Your task to perform on an android device: Open the web browser Image 0: 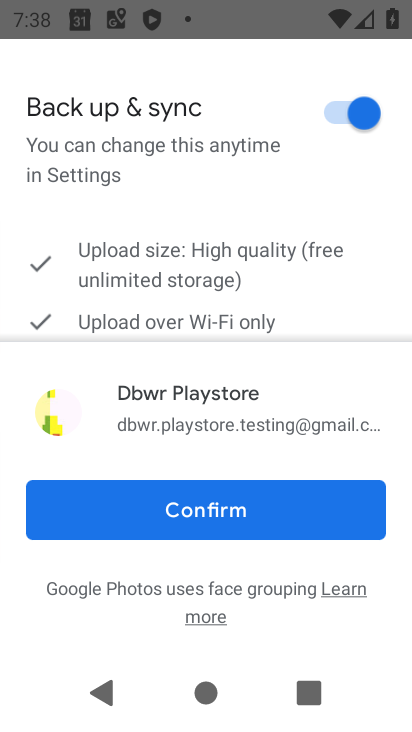
Step 0: press home button
Your task to perform on an android device: Open the web browser Image 1: 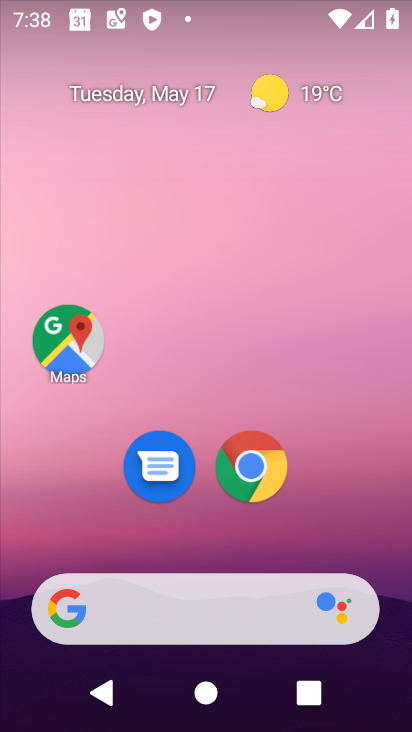
Step 1: click (265, 467)
Your task to perform on an android device: Open the web browser Image 2: 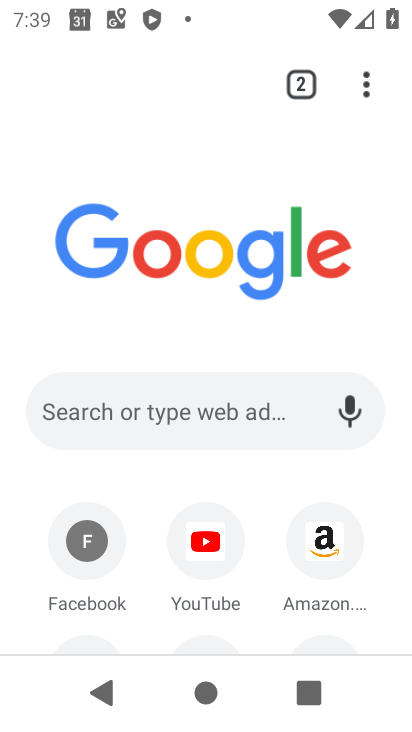
Step 2: task complete